Your task to perform on an android device: turn on improve location accuracy Image 0: 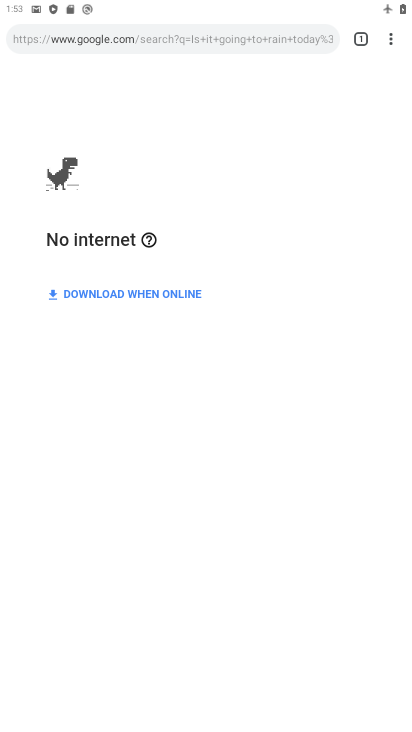
Step 0: press home button
Your task to perform on an android device: turn on improve location accuracy Image 1: 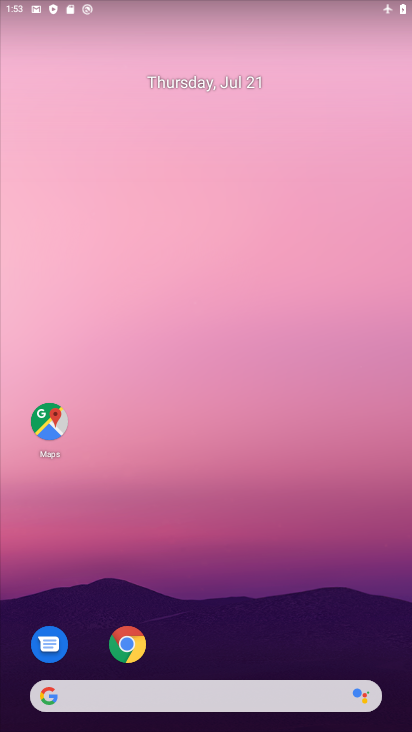
Step 1: drag from (234, 661) to (180, 189)
Your task to perform on an android device: turn on improve location accuracy Image 2: 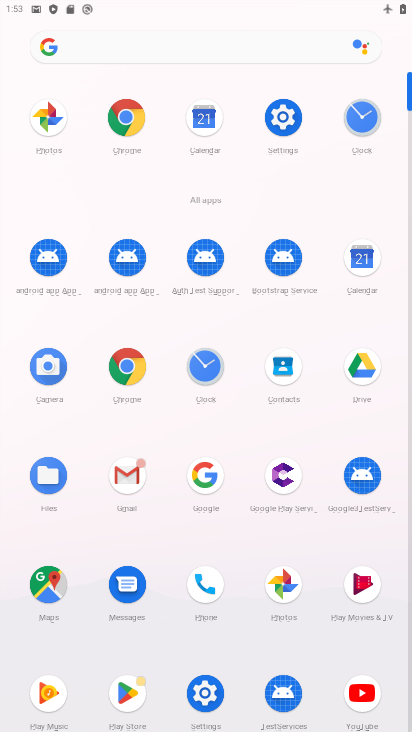
Step 2: click (281, 115)
Your task to perform on an android device: turn on improve location accuracy Image 3: 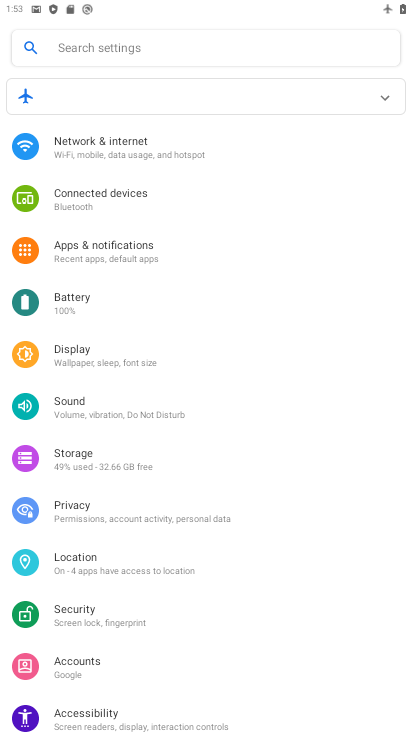
Step 3: click (85, 570)
Your task to perform on an android device: turn on improve location accuracy Image 4: 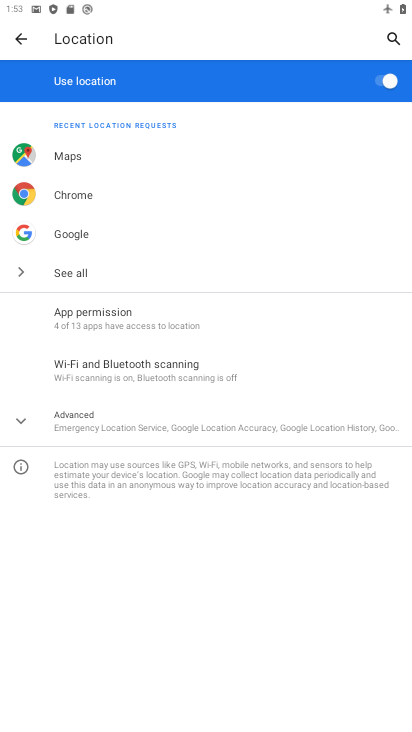
Step 4: click (245, 420)
Your task to perform on an android device: turn on improve location accuracy Image 5: 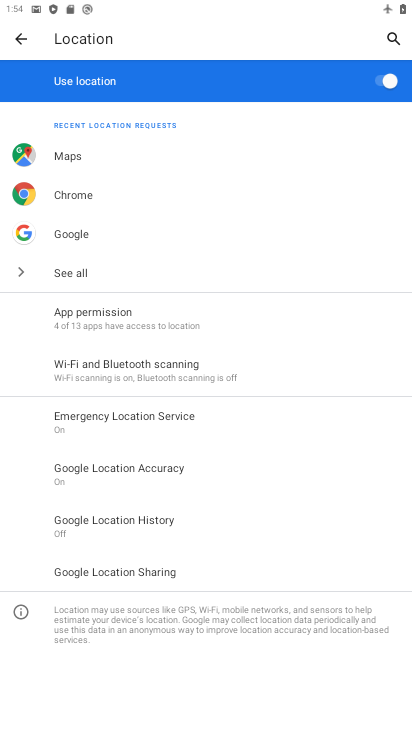
Step 5: click (213, 471)
Your task to perform on an android device: turn on improve location accuracy Image 6: 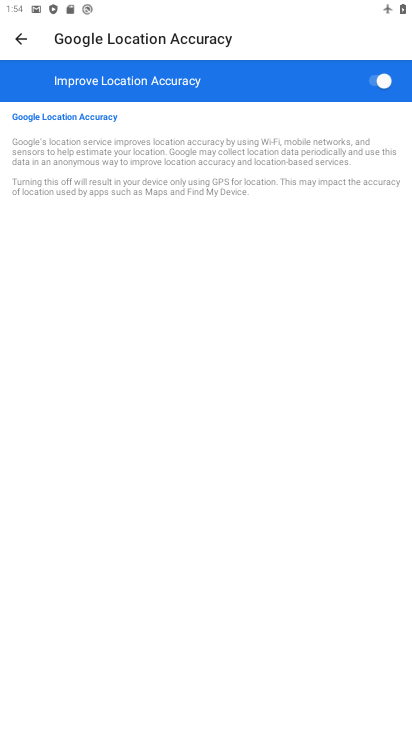
Step 6: task complete